Your task to perform on an android device: Look up the best gaming headphones on Best Buy Image 0: 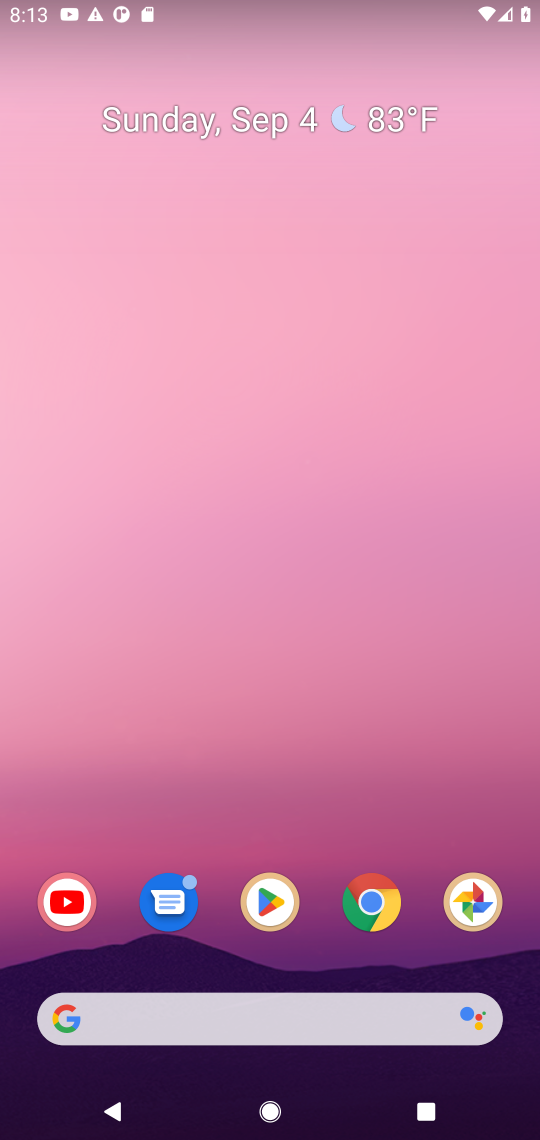
Step 0: click (253, 906)
Your task to perform on an android device: Look up the best gaming headphones on Best Buy Image 1: 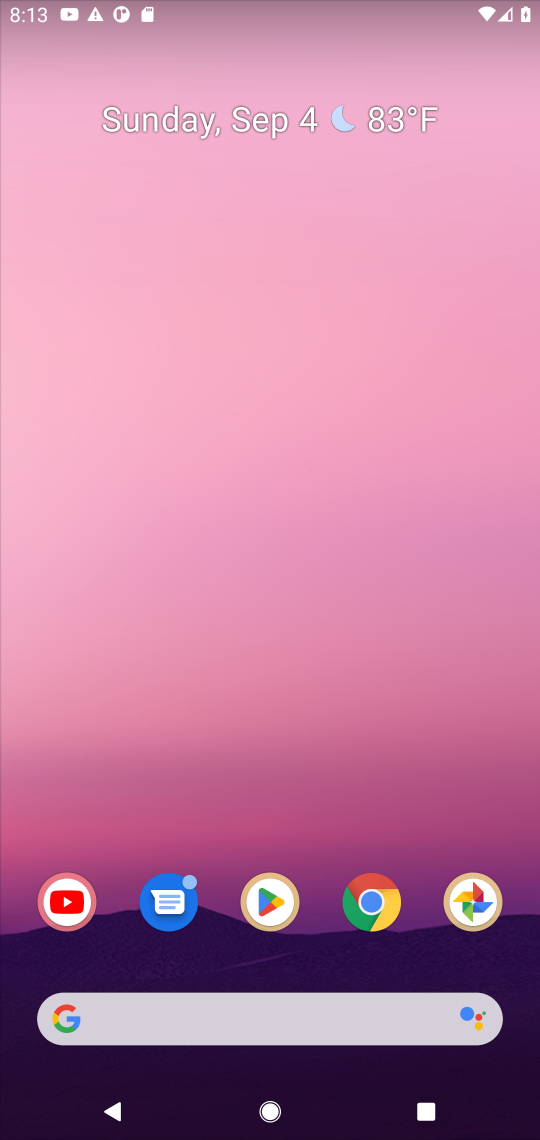
Step 1: click (253, 906)
Your task to perform on an android device: Look up the best gaming headphones on Best Buy Image 2: 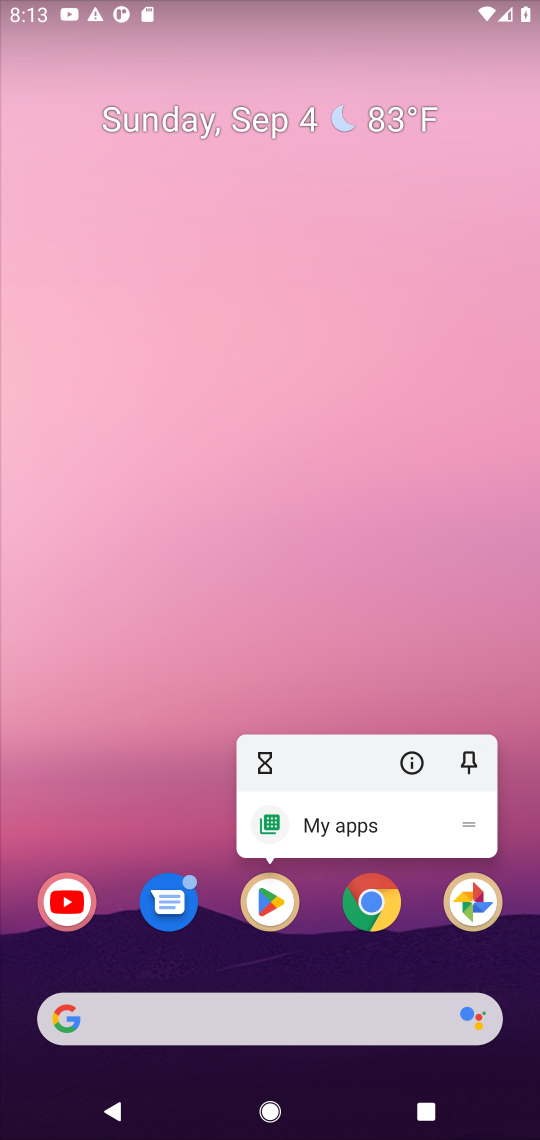
Step 2: click (253, 906)
Your task to perform on an android device: Look up the best gaming headphones on Best Buy Image 3: 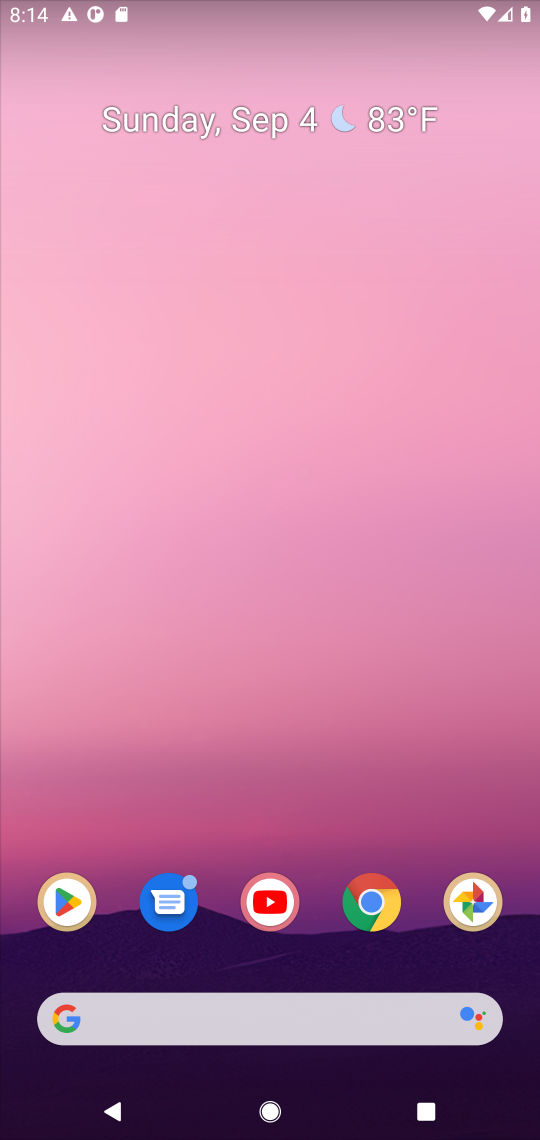
Step 3: click (253, 906)
Your task to perform on an android device: Look up the best gaming headphones on Best Buy Image 4: 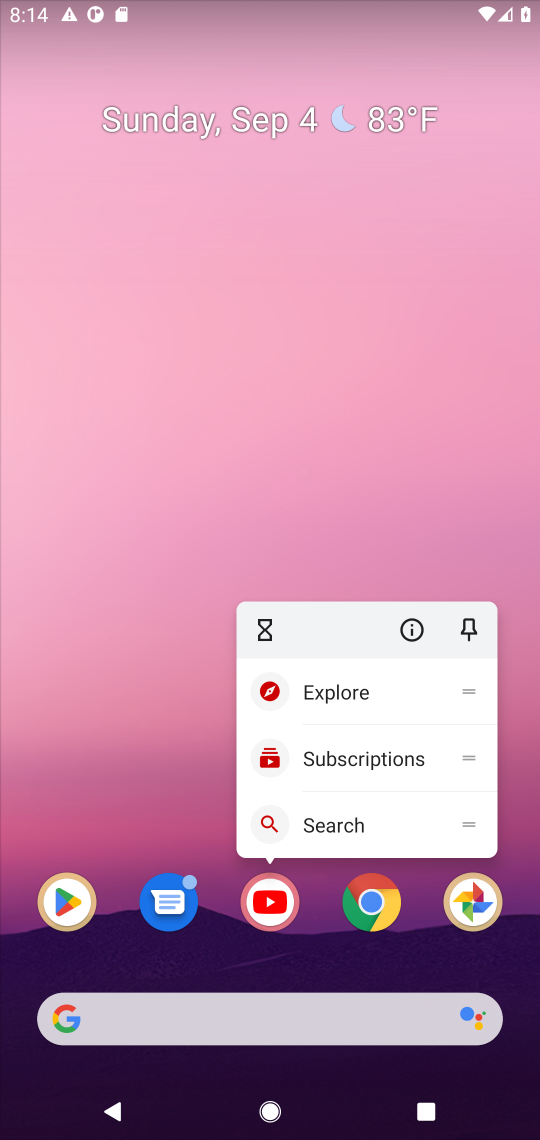
Step 4: click (253, 906)
Your task to perform on an android device: Look up the best gaming headphones on Best Buy Image 5: 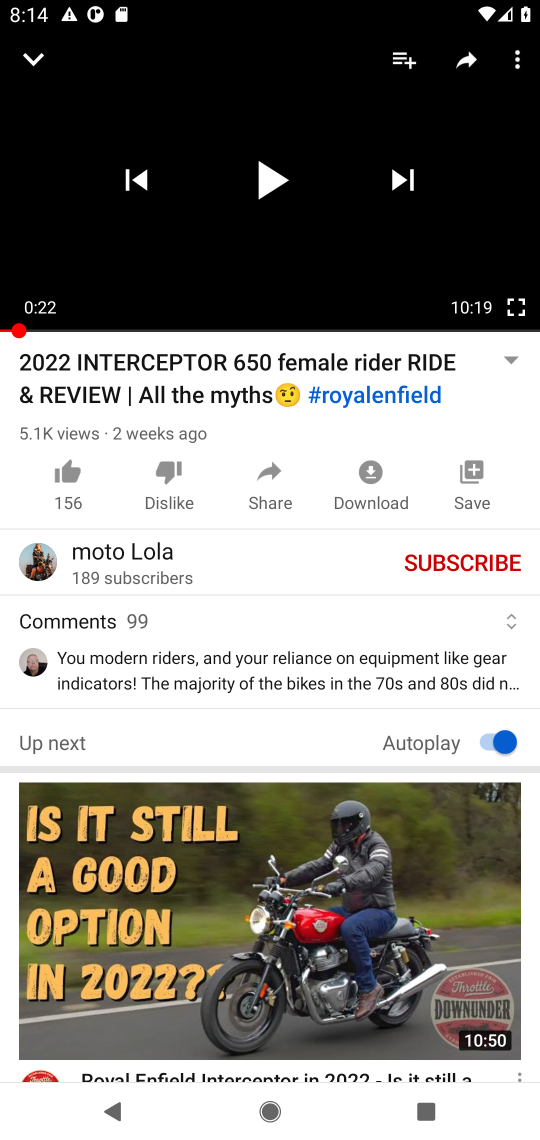
Step 5: click (253, 906)
Your task to perform on an android device: Look up the best gaming headphones on Best Buy Image 6: 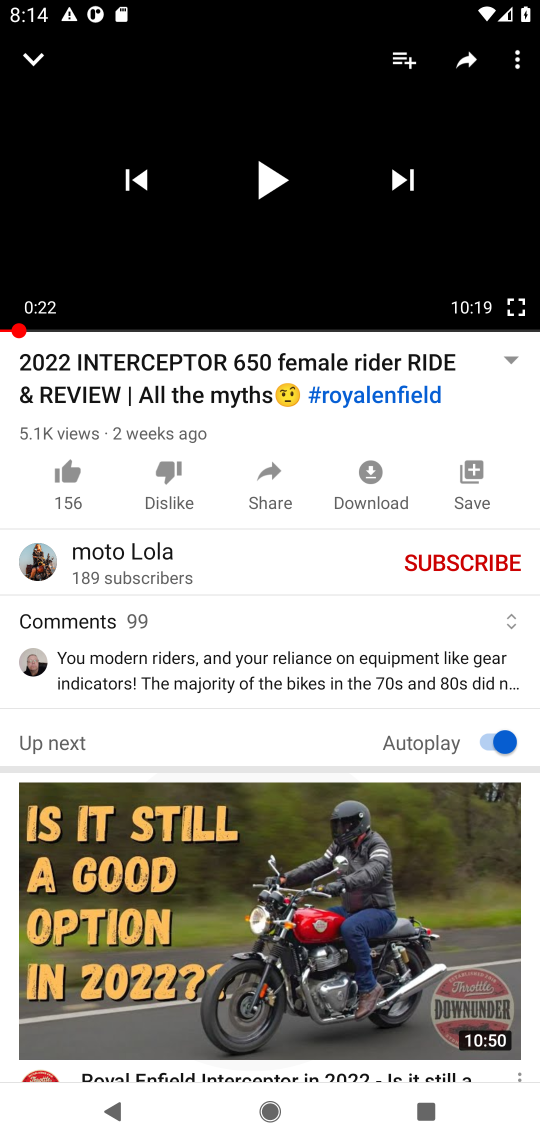
Step 6: task complete